Your task to perform on an android device: What is the recent news? Image 0: 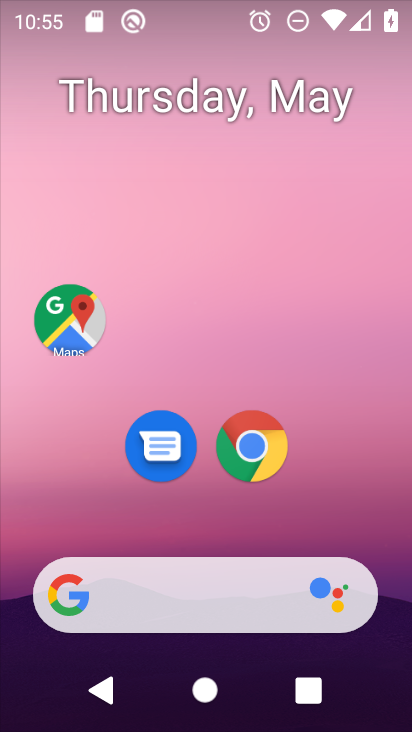
Step 0: drag from (275, 652) to (285, 260)
Your task to perform on an android device: What is the recent news? Image 1: 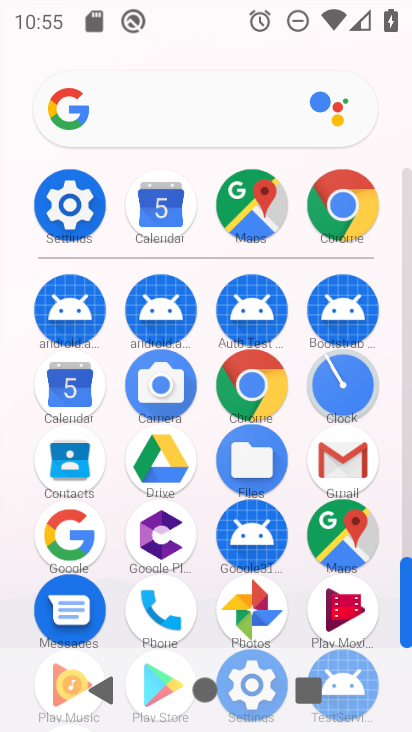
Step 1: click (183, 114)
Your task to perform on an android device: What is the recent news? Image 2: 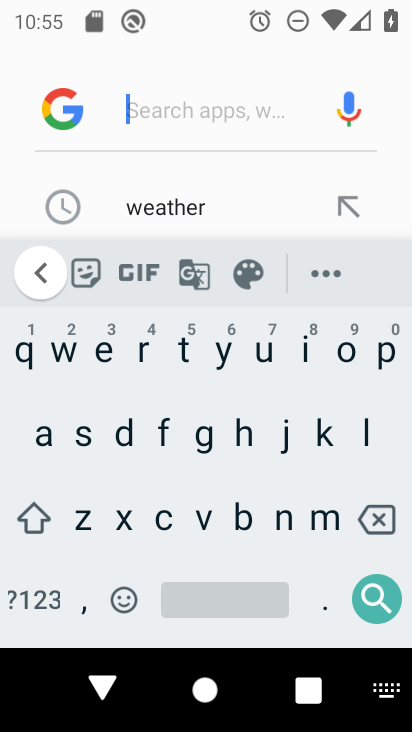
Step 2: click (135, 355)
Your task to perform on an android device: What is the recent news? Image 3: 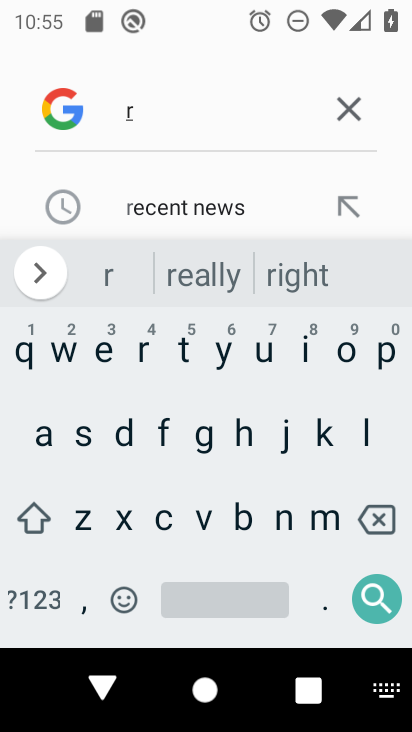
Step 3: click (177, 205)
Your task to perform on an android device: What is the recent news? Image 4: 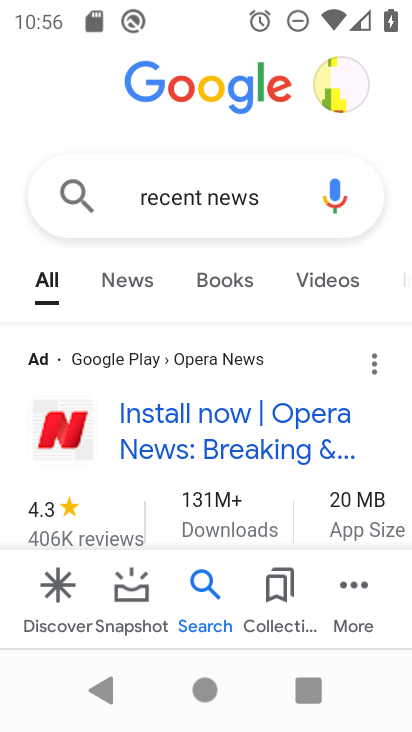
Step 4: task complete